Your task to perform on an android device: turn on the 12-hour format for clock Image 0: 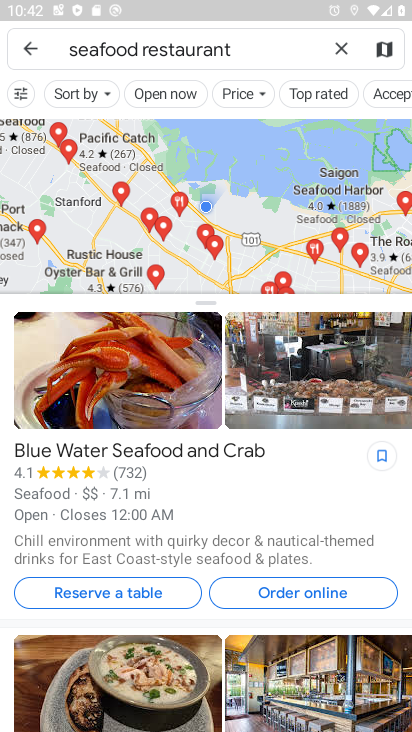
Step 0: press home button
Your task to perform on an android device: turn on the 12-hour format for clock Image 1: 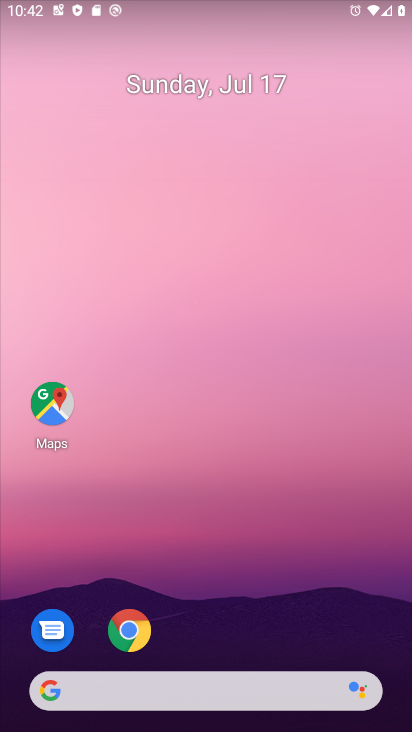
Step 1: drag from (311, 609) to (360, 96)
Your task to perform on an android device: turn on the 12-hour format for clock Image 2: 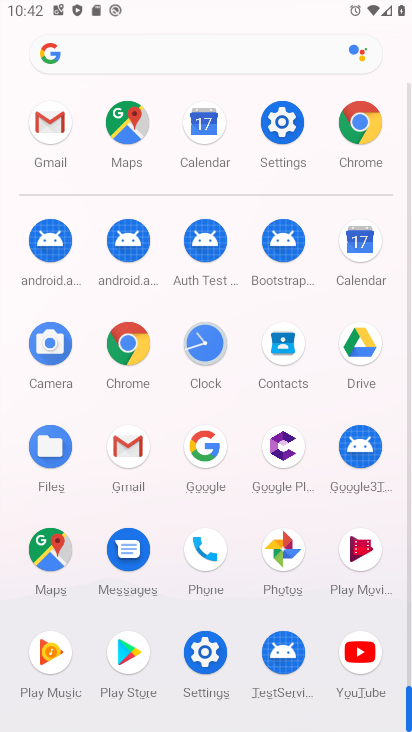
Step 2: click (202, 348)
Your task to perform on an android device: turn on the 12-hour format for clock Image 3: 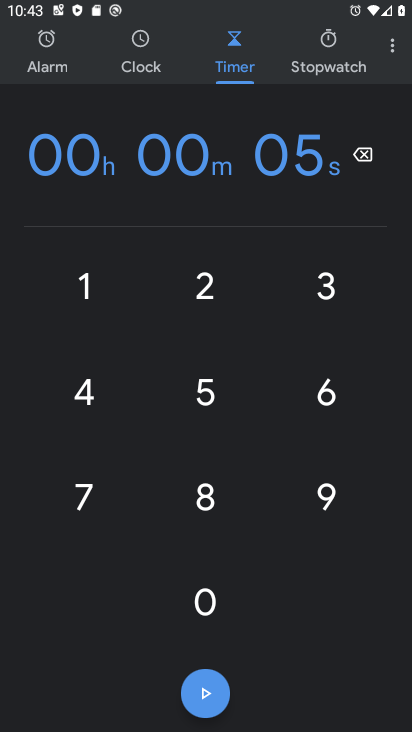
Step 3: click (393, 50)
Your task to perform on an android device: turn on the 12-hour format for clock Image 4: 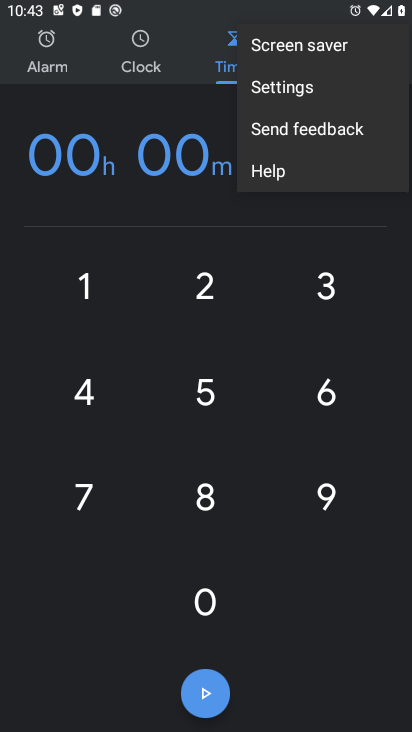
Step 4: click (320, 96)
Your task to perform on an android device: turn on the 12-hour format for clock Image 5: 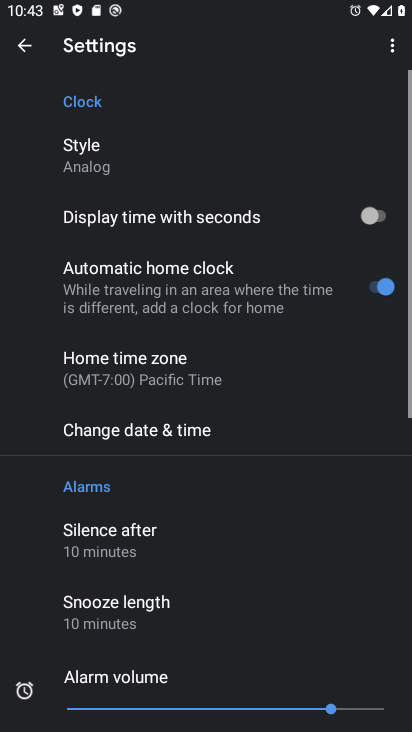
Step 5: drag from (324, 449) to (328, 327)
Your task to perform on an android device: turn on the 12-hour format for clock Image 6: 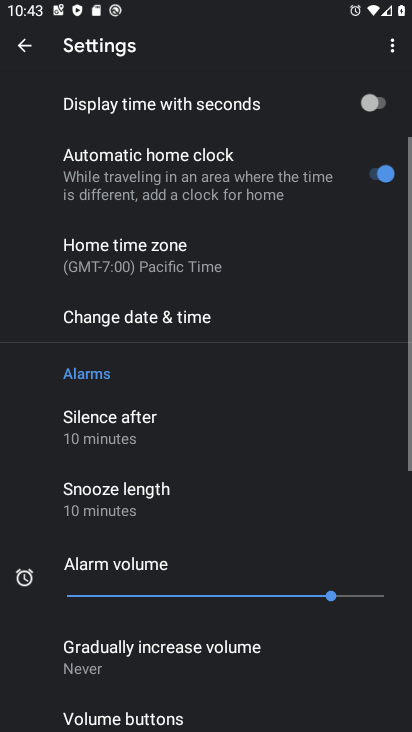
Step 6: drag from (325, 478) to (330, 354)
Your task to perform on an android device: turn on the 12-hour format for clock Image 7: 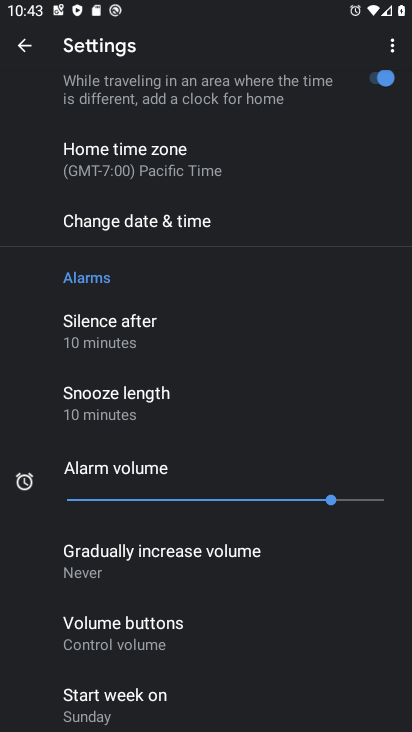
Step 7: drag from (353, 540) to (354, 453)
Your task to perform on an android device: turn on the 12-hour format for clock Image 8: 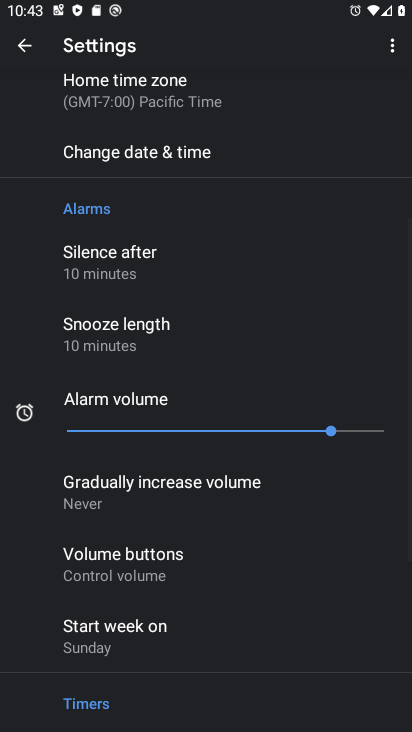
Step 8: drag from (353, 554) to (356, 462)
Your task to perform on an android device: turn on the 12-hour format for clock Image 9: 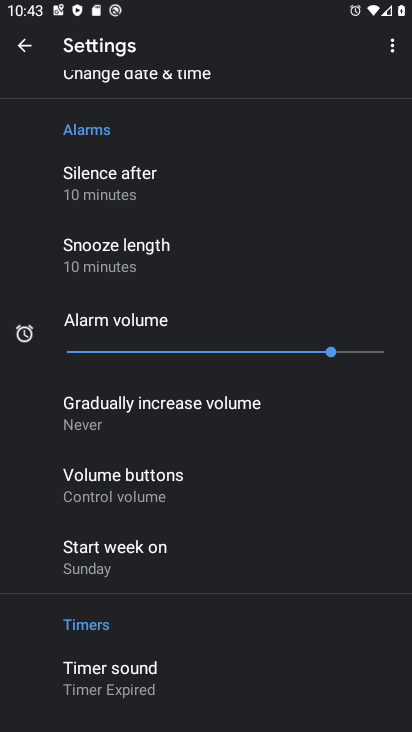
Step 9: drag from (348, 545) to (344, 429)
Your task to perform on an android device: turn on the 12-hour format for clock Image 10: 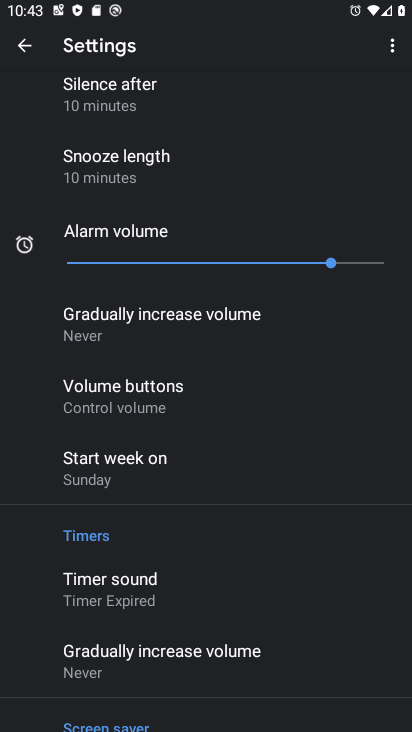
Step 10: drag from (325, 561) to (325, 336)
Your task to perform on an android device: turn on the 12-hour format for clock Image 11: 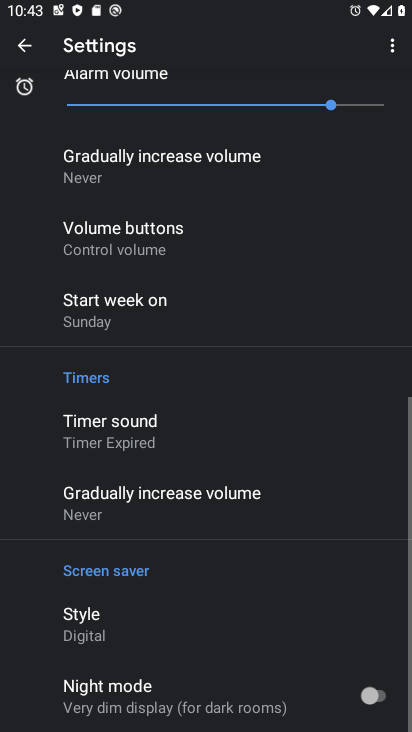
Step 11: drag from (339, 276) to (345, 393)
Your task to perform on an android device: turn on the 12-hour format for clock Image 12: 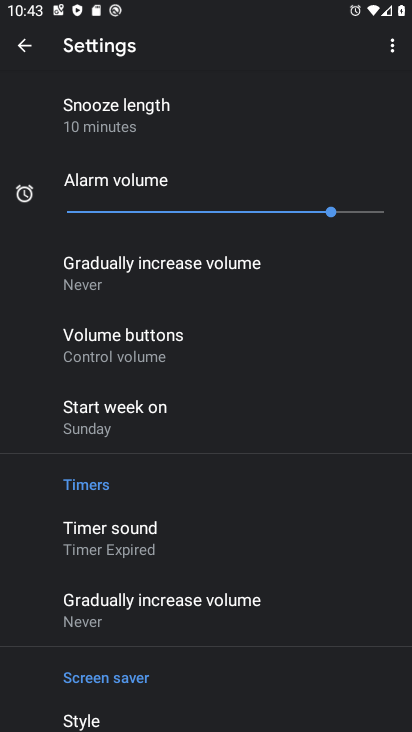
Step 12: drag from (350, 262) to (356, 377)
Your task to perform on an android device: turn on the 12-hour format for clock Image 13: 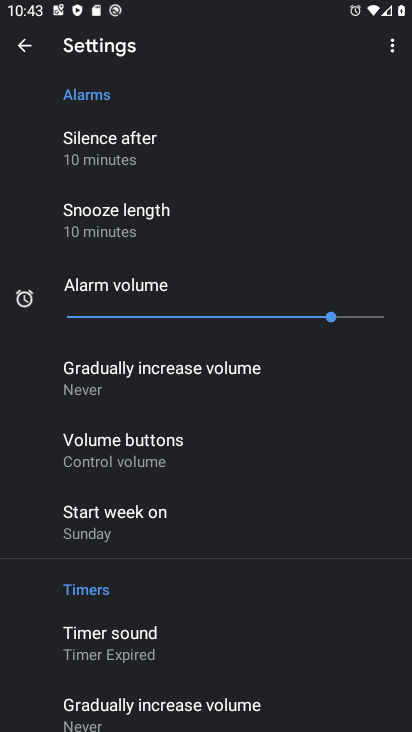
Step 13: drag from (371, 242) to (362, 373)
Your task to perform on an android device: turn on the 12-hour format for clock Image 14: 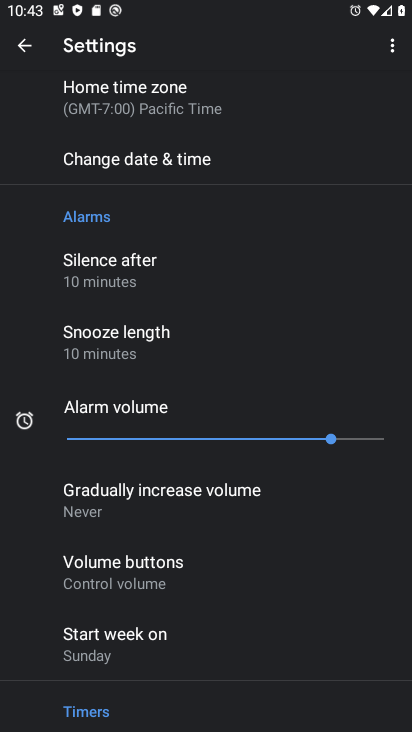
Step 14: drag from (352, 212) to (353, 301)
Your task to perform on an android device: turn on the 12-hour format for clock Image 15: 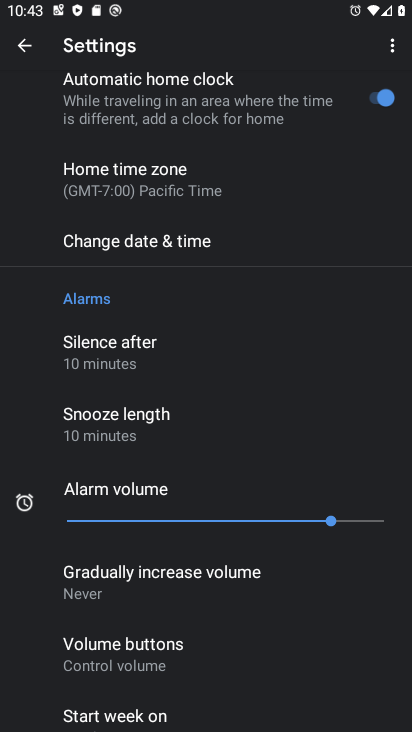
Step 15: drag from (360, 247) to (358, 391)
Your task to perform on an android device: turn on the 12-hour format for clock Image 16: 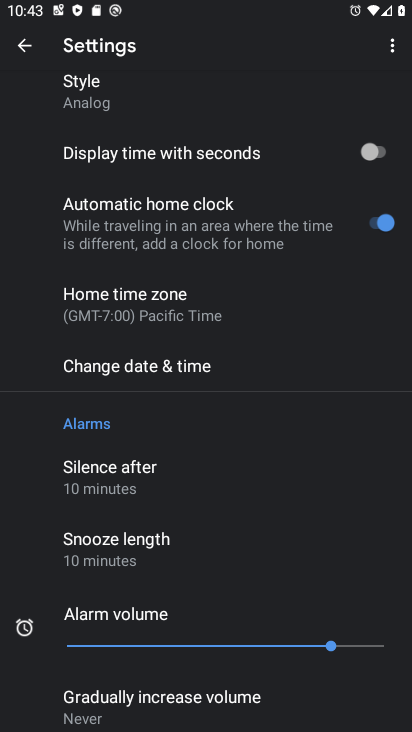
Step 16: click (194, 361)
Your task to perform on an android device: turn on the 12-hour format for clock Image 17: 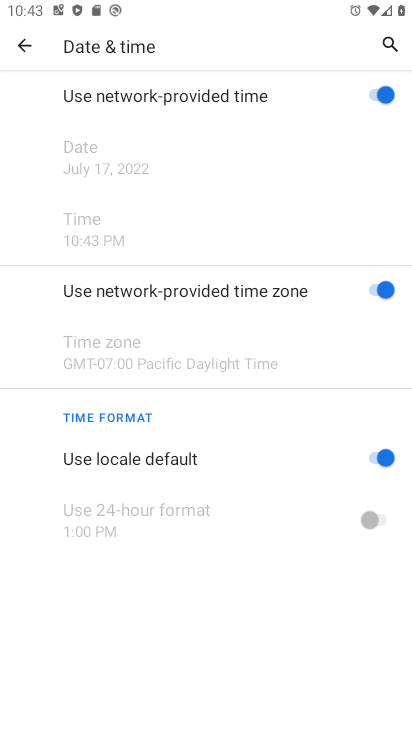
Step 17: task complete